Your task to perform on an android device: toggle notifications settings in the gmail app Image 0: 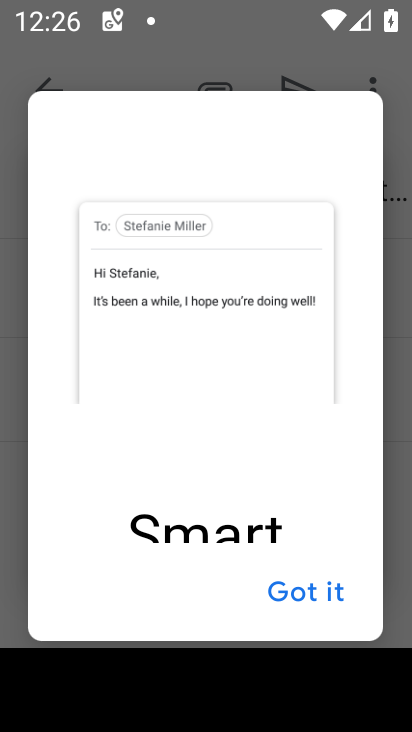
Step 0: press home button
Your task to perform on an android device: toggle notifications settings in the gmail app Image 1: 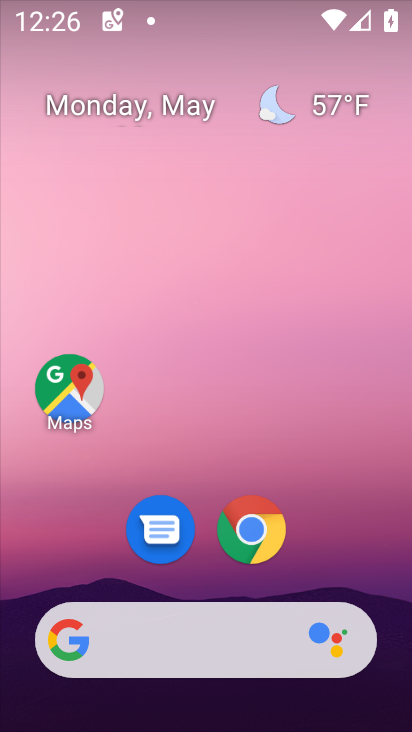
Step 1: drag from (329, 554) to (335, 49)
Your task to perform on an android device: toggle notifications settings in the gmail app Image 2: 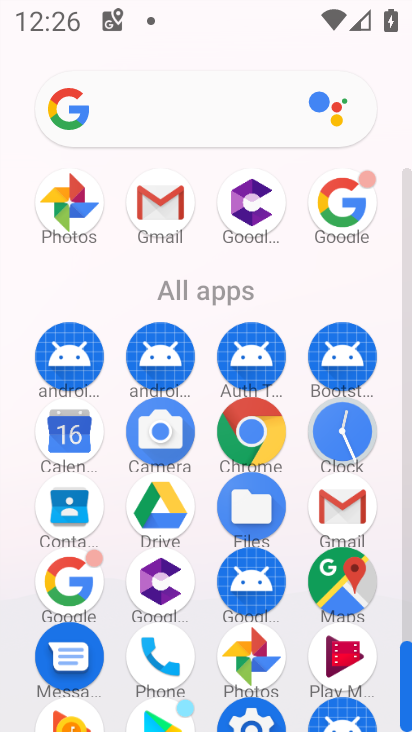
Step 2: click (160, 202)
Your task to perform on an android device: toggle notifications settings in the gmail app Image 3: 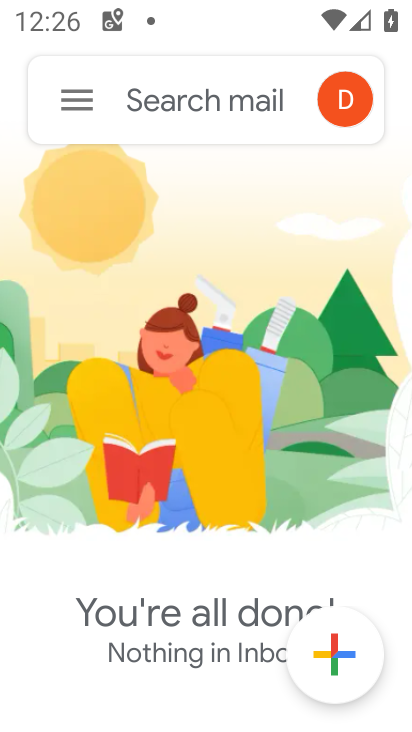
Step 3: click (68, 97)
Your task to perform on an android device: toggle notifications settings in the gmail app Image 4: 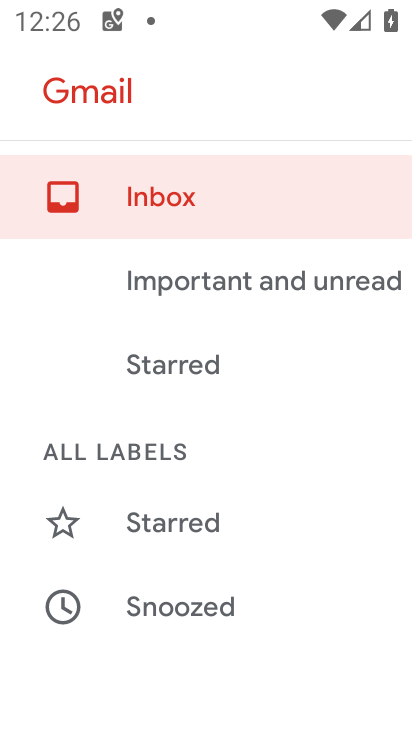
Step 4: drag from (161, 392) to (242, 275)
Your task to perform on an android device: toggle notifications settings in the gmail app Image 5: 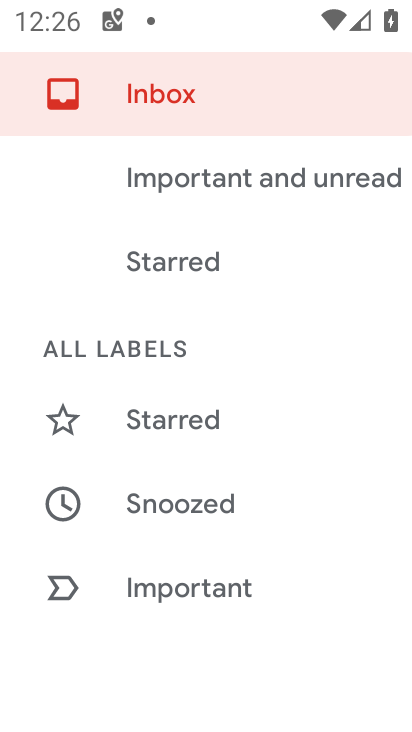
Step 5: drag from (185, 458) to (263, 361)
Your task to perform on an android device: toggle notifications settings in the gmail app Image 6: 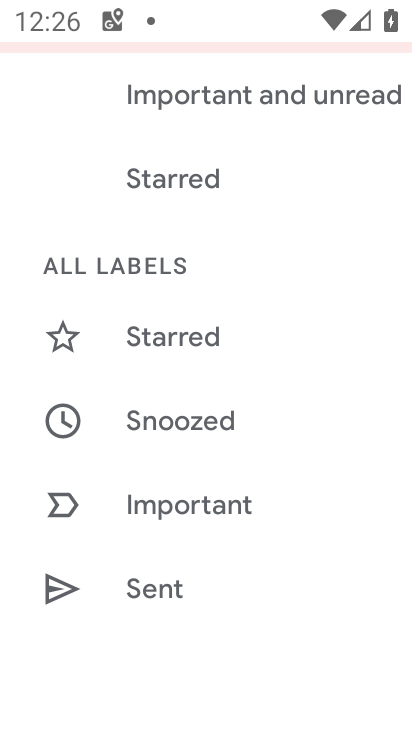
Step 6: drag from (181, 528) to (258, 408)
Your task to perform on an android device: toggle notifications settings in the gmail app Image 7: 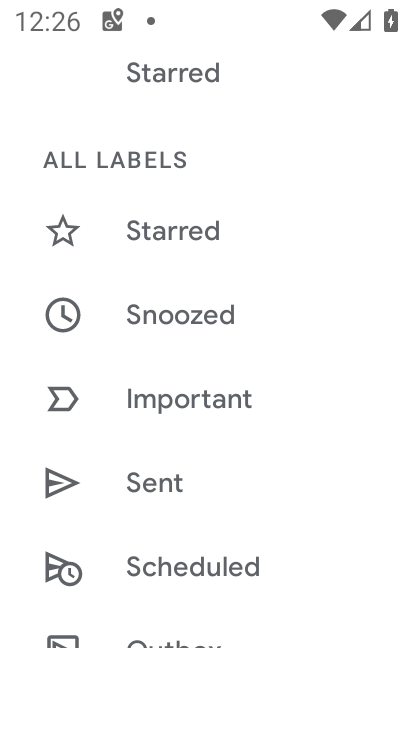
Step 7: drag from (214, 498) to (265, 435)
Your task to perform on an android device: toggle notifications settings in the gmail app Image 8: 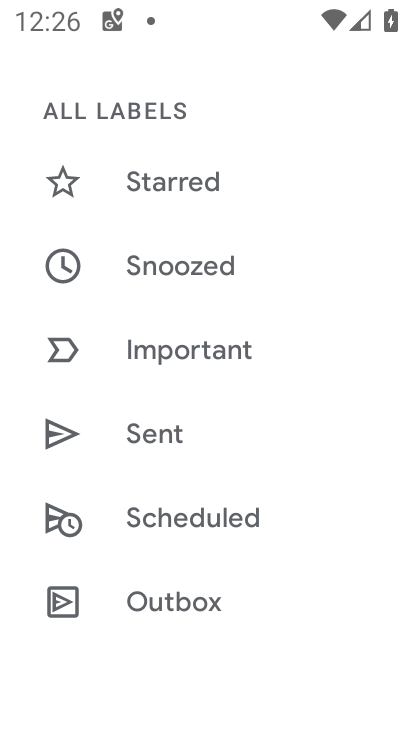
Step 8: drag from (170, 552) to (208, 444)
Your task to perform on an android device: toggle notifications settings in the gmail app Image 9: 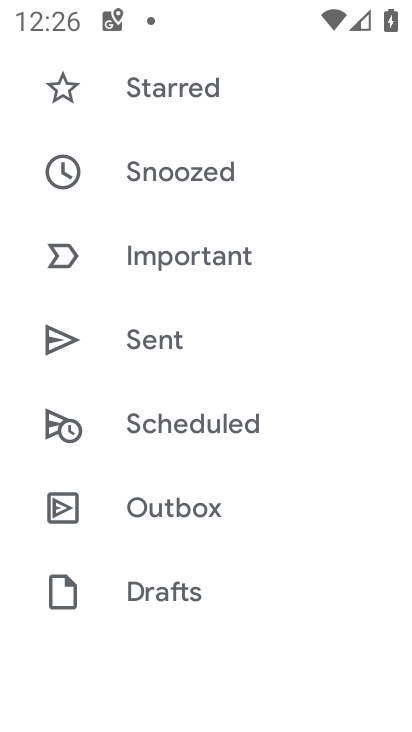
Step 9: drag from (224, 551) to (262, 444)
Your task to perform on an android device: toggle notifications settings in the gmail app Image 10: 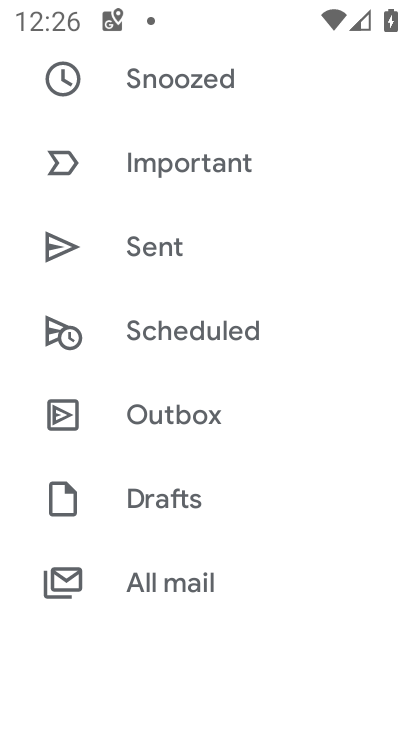
Step 10: drag from (189, 530) to (285, 430)
Your task to perform on an android device: toggle notifications settings in the gmail app Image 11: 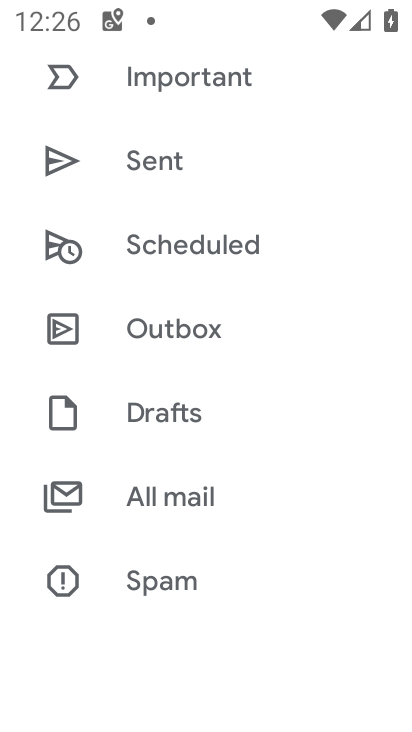
Step 11: drag from (162, 536) to (258, 382)
Your task to perform on an android device: toggle notifications settings in the gmail app Image 12: 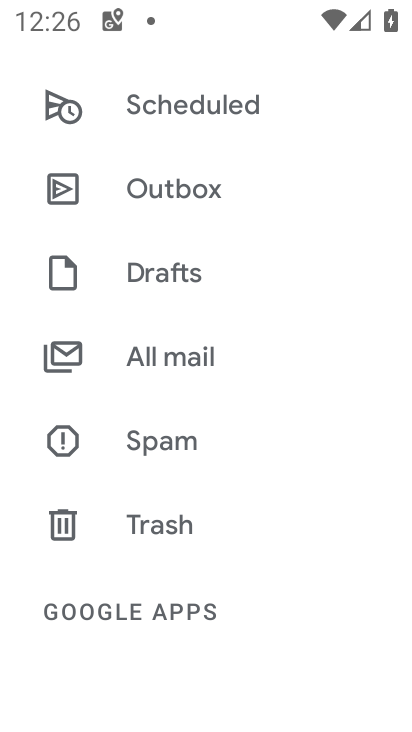
Step 12: drag from (187, 507) to (269, 361)
Your task to perform on an android device: toggle notifications settings in the gmail app Image 13: 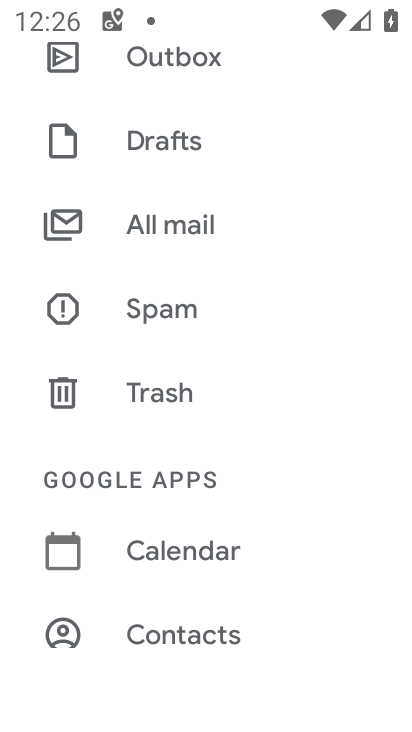
Step 13: drag from (189, 547) to (290, 391)
Your task to perform on an android device: toggle notifications settings in the gmail app Image 14: 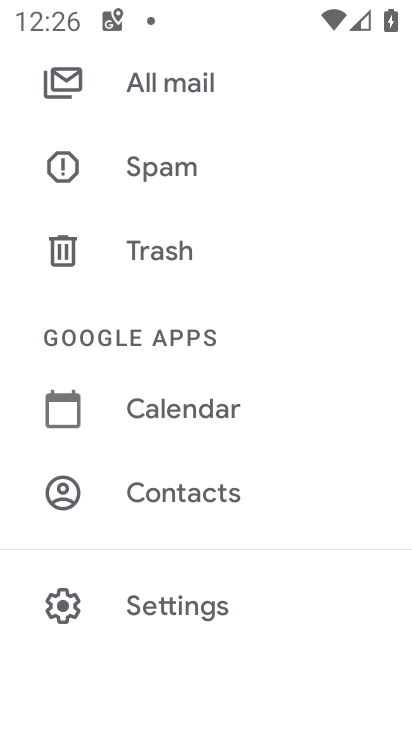
Step 14: click (167, 612)
Your task to perform on an android device: toggle notifications settings in the gmail app Image 15: 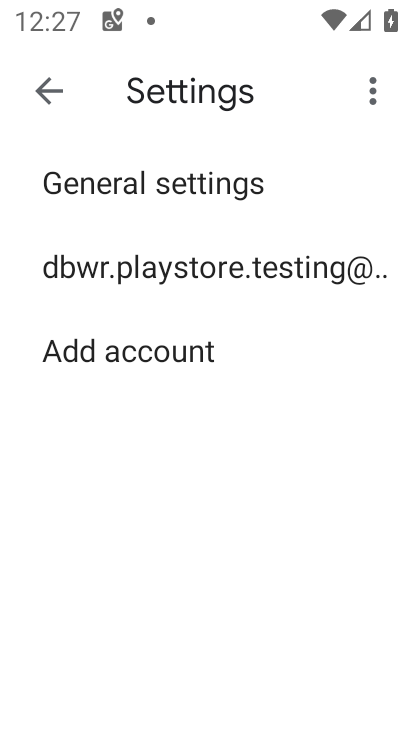
Step 15: click (203, 277)
Your task to perform on an android device: toggle notifications settings in the gmail app Image 16: 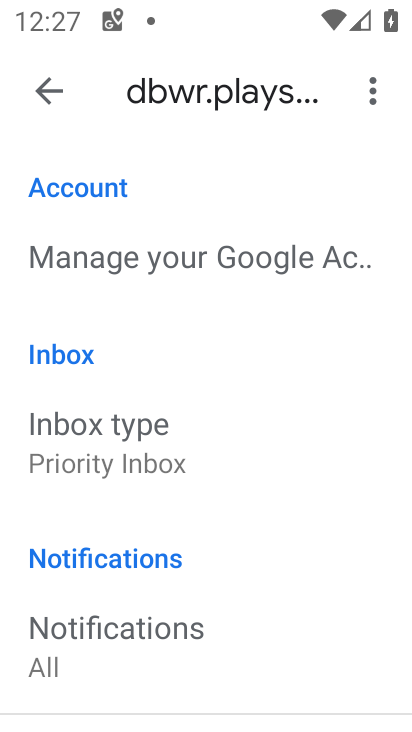
Step 16: drag from (134, 518) to (227, 391)
Your task to perform on an android device: toggle notifications settings in the gmail app Image 17: 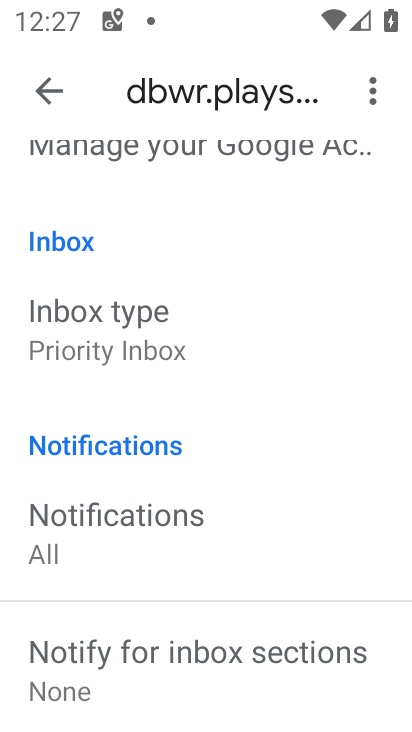
Step 17: drag from (138, 588) to (235, 418)
Your task to perform on an android device: toggle notifications settings in the gmail app Image 18: 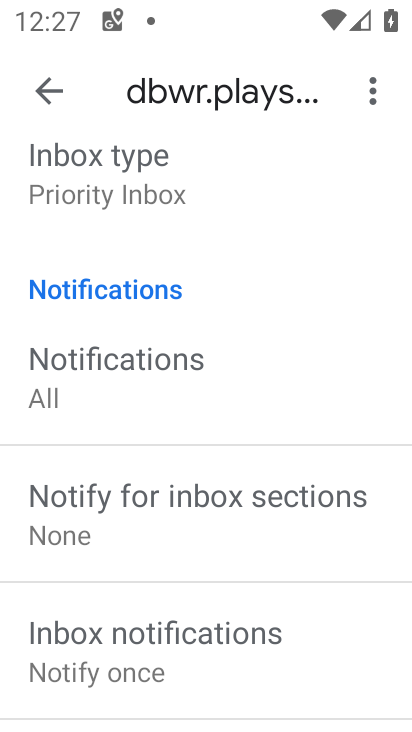
Step 18: drag from (154, 545) to (241, 362)
Your task to perform on an android device: toggle notifications settings in the gmail app Image 19: 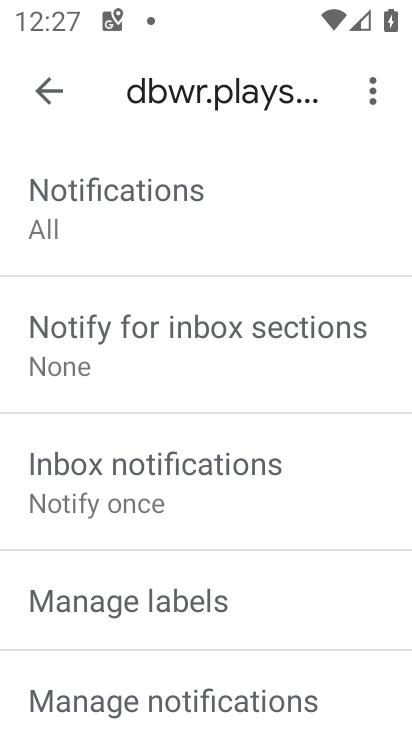
Step 19: drag from (155, 554) to (246, 431)
Your task to perform on an android device: toggle notifications settings in the gmail app Image 20: 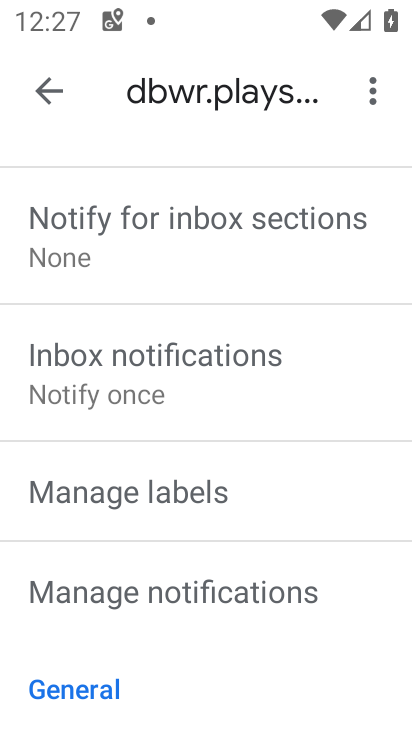
Step 20: click (171, 593)
Your task to perform on an android device: toggle notifications settings in the gmail app Image 21: 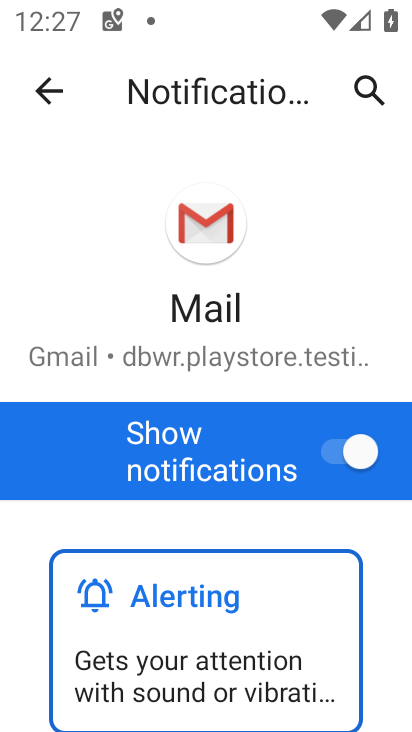
Step 21: click (335, 462)
Your task to perform on an android device: toggle notifications settings in the gmail app Image 22: 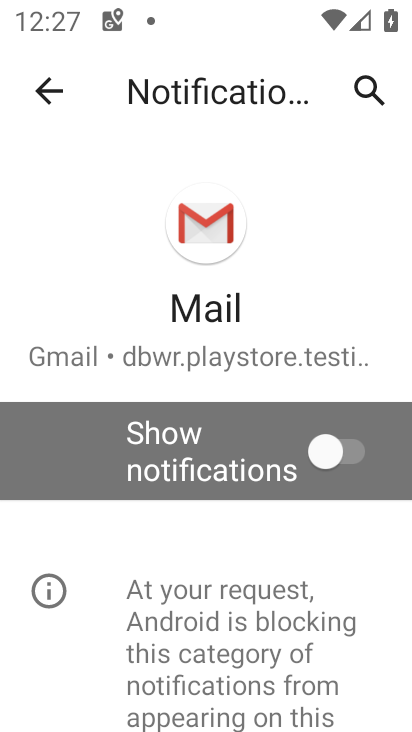
Step 22: task complete